Your task to perform on an android device: Turn off the flashlight Image 0: 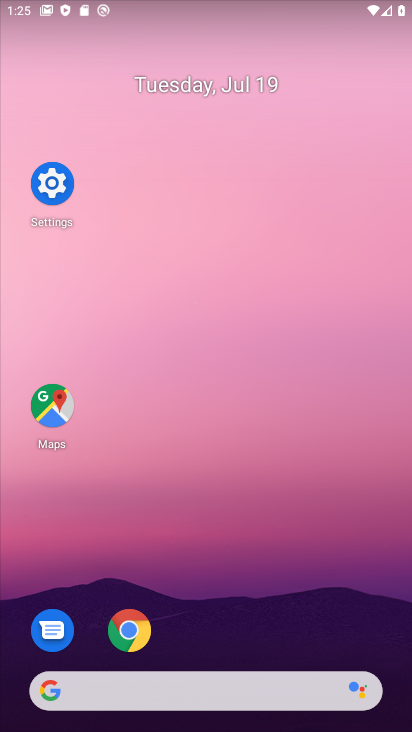
Step 0: drag from (222, 4) to (373, 478)
Your task to perform on an android device: Turn off the flashlight Image 1: 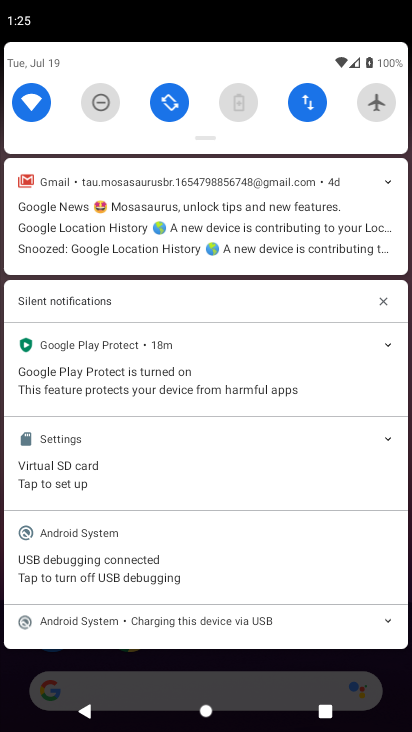
Step 1: task complete